Your task to perform on an android device: delete the emails in spam in the gmail app Image 0: 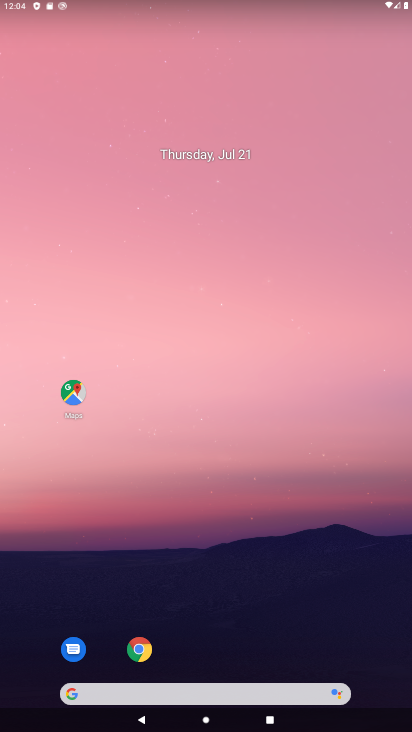
Step 0: drag from (252, 642) to (244, 187)
Your task to perform on an android device: delete the emails in spam in the gmail app Image 1: 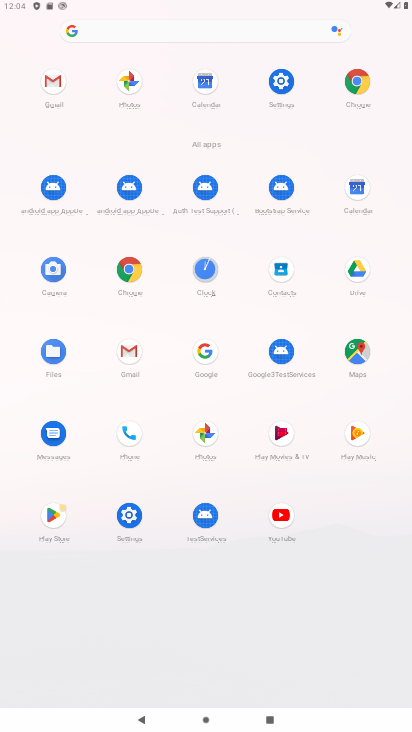
Step 1: click (66, 95)
Your task to perform on an android device: delete the emails in spam in the gmail app Image 2: 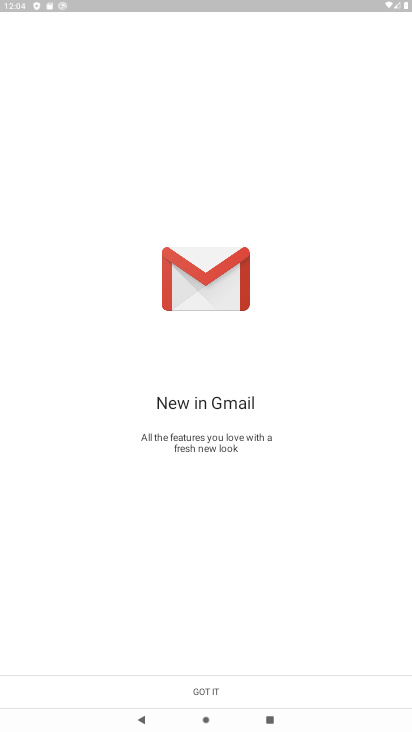
Step 2: click (187, 685)
Your task to perform on an android device: delete the emails in spam in the gmail app Image 3: 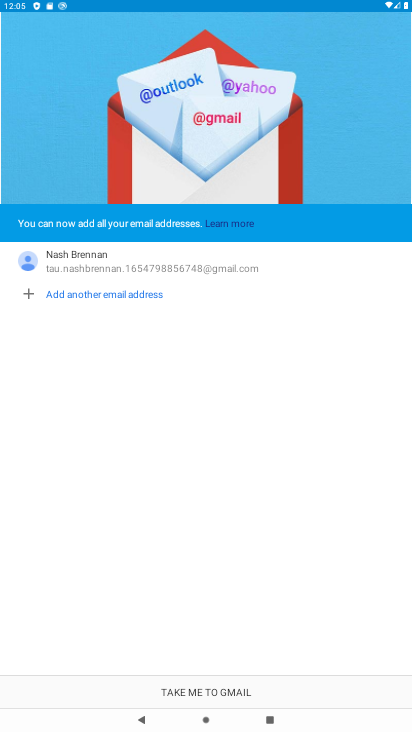
Step 3: click (187, 685)
Your task to perform on an android device: delete the emails in spam in the gmail app Image 4: 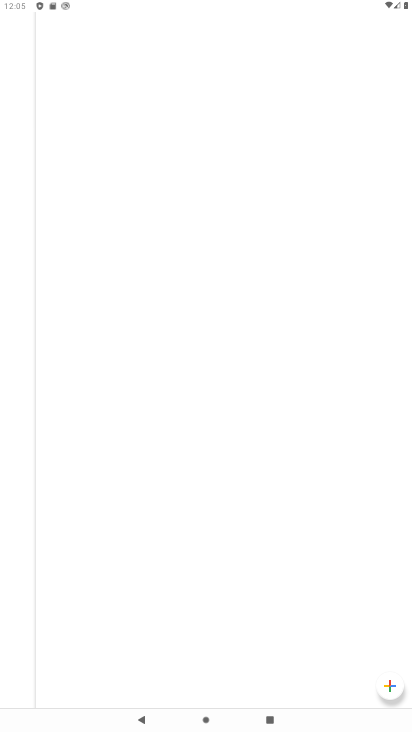
Step 4: task complete